Your task to perform on an android device: Open Google Chrome and open the bookmarks view Image 0: 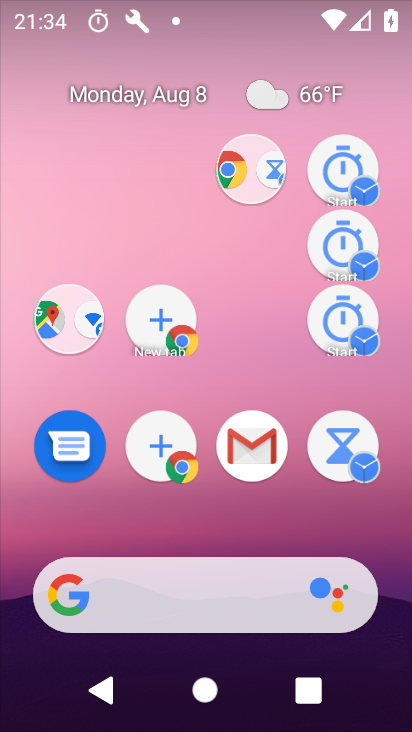
Step 0: click (235, 76)
Your task to perform on an android device: Open Google Chrome and open the bookmarks view Image 1: 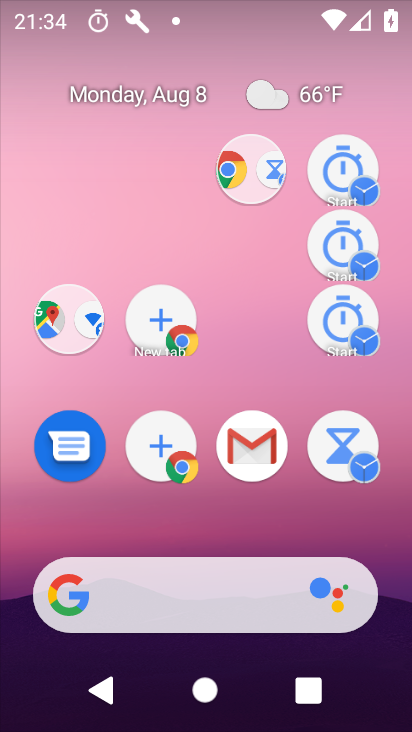
Step 1: drag from (271, 458) to (194, 83)
Your task to perform on an android device: Open Google Chrome and open the bookmarks view Image 2: 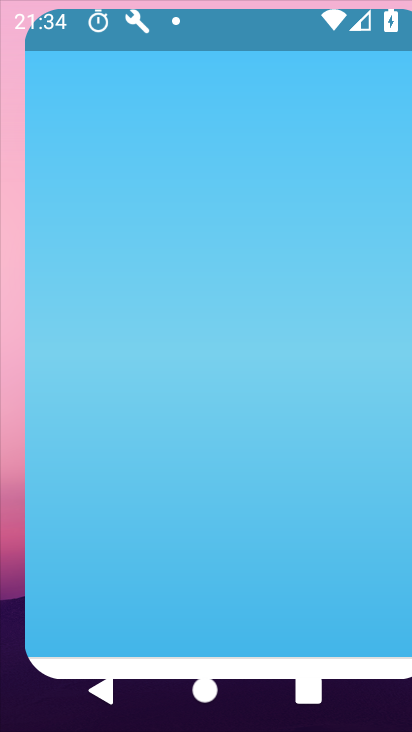
Step 2: drag from (270, 449) to (225, 162)
Your task to perform on an android device: Open Google Chrome and open the bookmarks view Image 3: 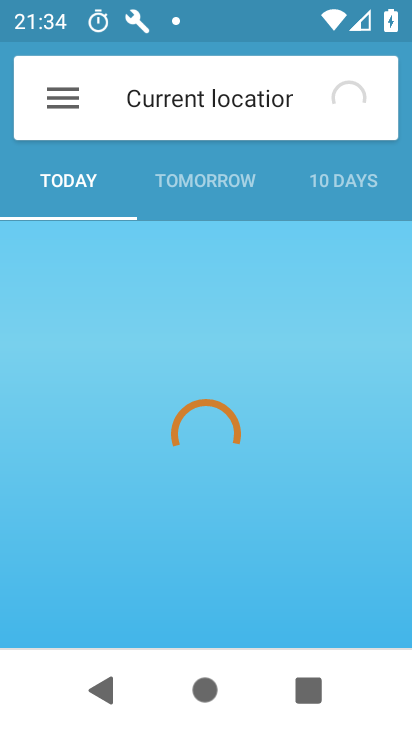
Step 3: drag from (265, 497) to (220, 179)
Your task to perform on an android device: Open Google Chrome and open the bookmarks view Image 4: 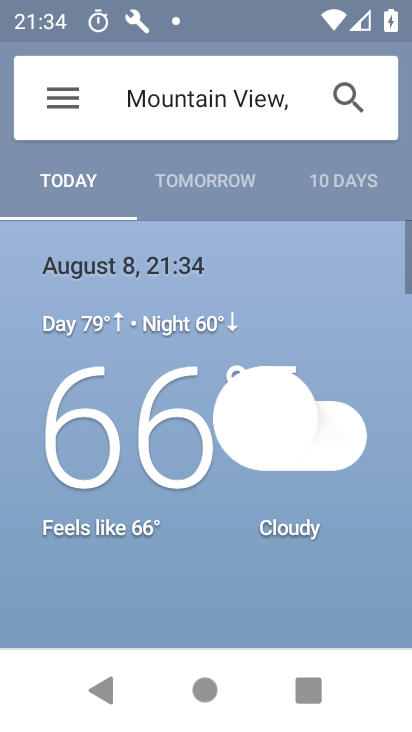
Step 4: press back button
Your task to perform on an android device: Open Google Chrome and open the bookmarks view Image 5: 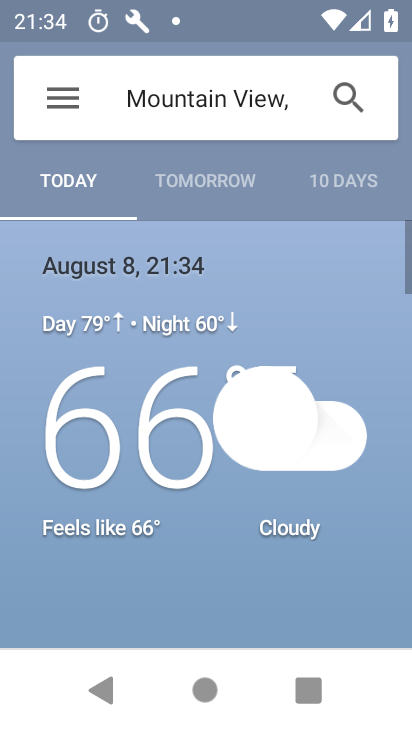
Step 5: press back button
Your task to perform on an android device: Open Google Chrome and open the bookmarks view Image 6: 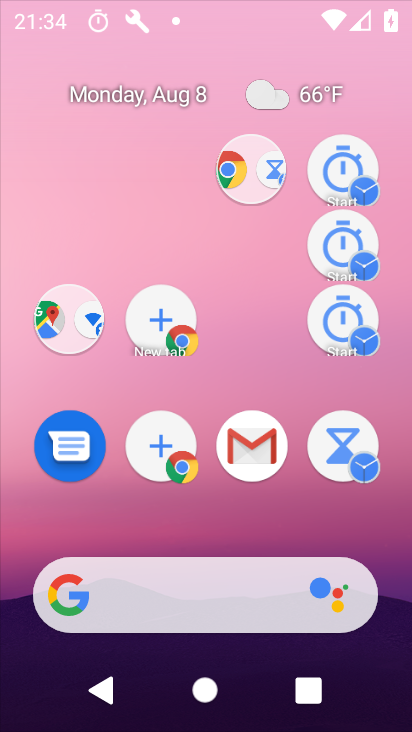
Step 6: press back button
Your task to perform on an android device: Open Google Chrome and open the bookmarks view Image 7: 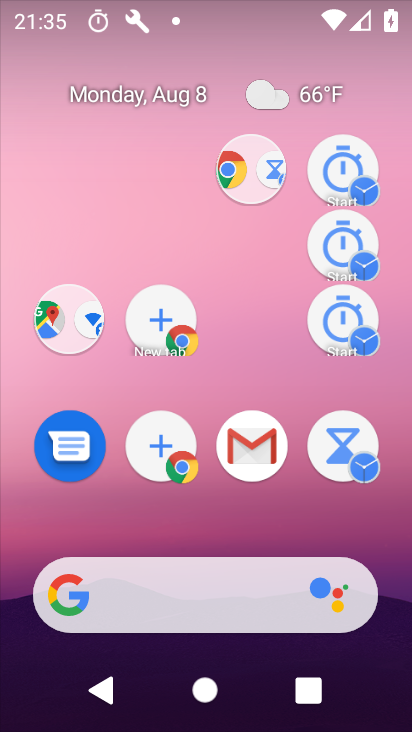
Step 7: drag from (251, 547) to (191, 187)
Your task to perform on an android device: Open Google Chrome and open the bookmarks view Image 8: 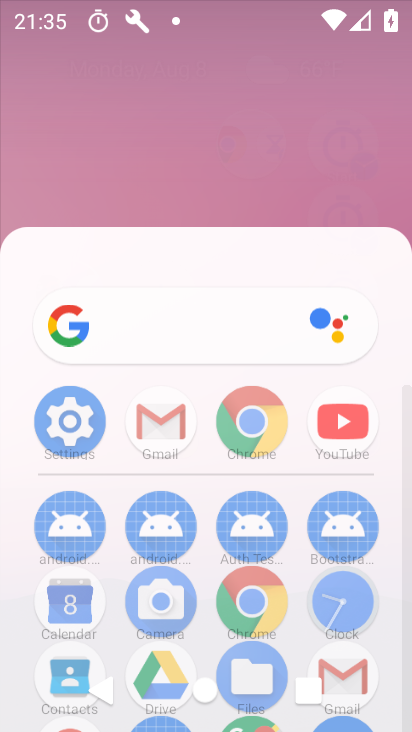
Step 8: click (202, 348)
Your task to perform on an android device: Open Google Chrome and open the bookmarks view Image 9: 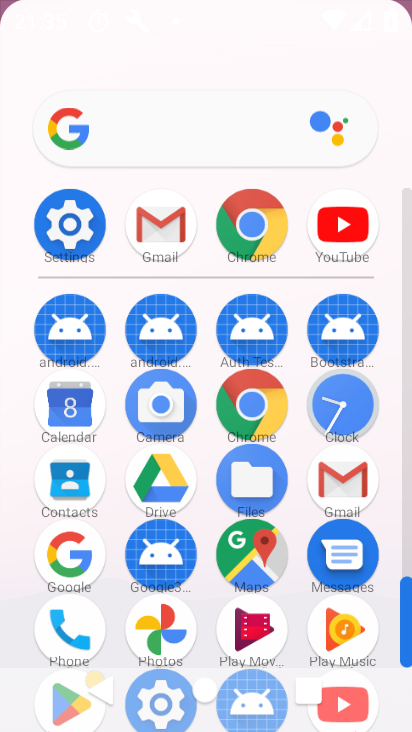
Step 9: drag from (176, 167) to (194, 211)
Your task to perform on an android device: Open Google Chrome and open the bookmarks view Image 10: 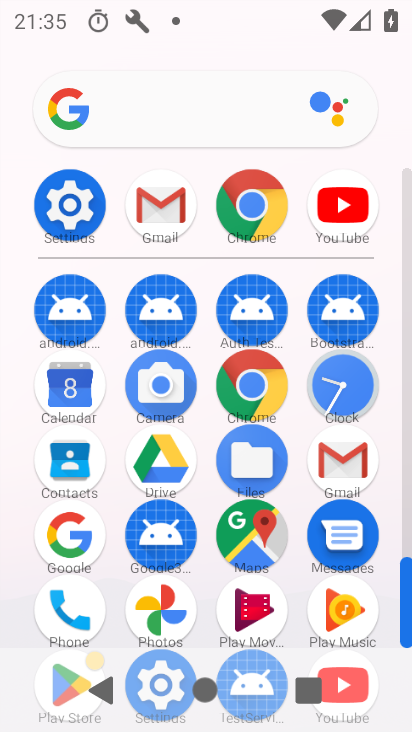
Step 10: click (252, 202)
Your task to perform on an android device: Open Google Chrome and open the bookmarks view Image 11: 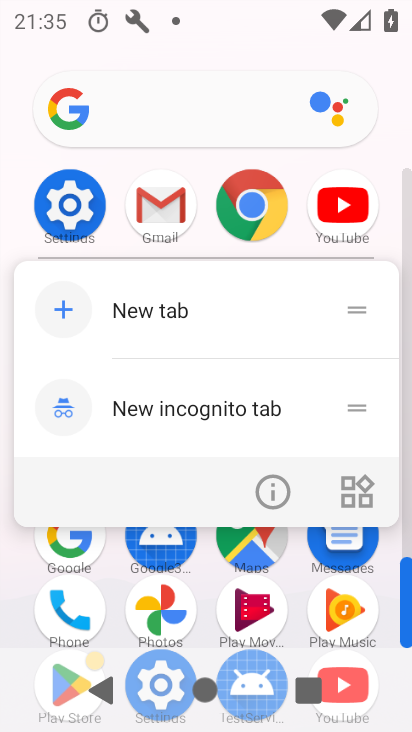
Step 11: click (251, 202)
Your task to perform on an android device: Open Google Chrome and open the bookmarks view Image 12: 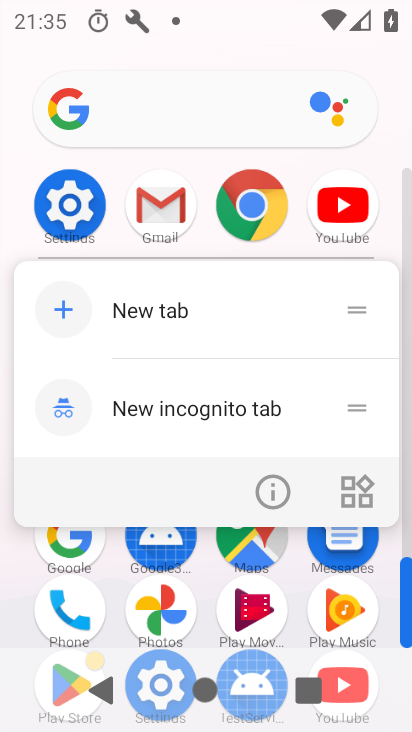
Step 12: click (189, 303)
Your task to perform on an android device: Open Google Chrome and open the bookmarks view Image 13: 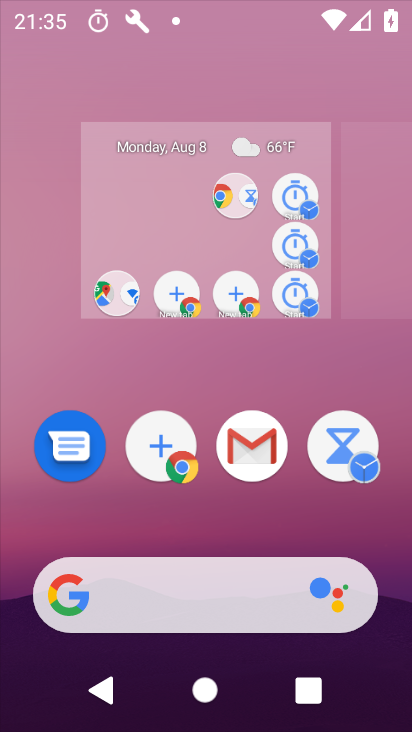
Step 13: click (188, 316)
Your task to perform on an android device: Open Google Chrome and open the bookmarks view Image 14: 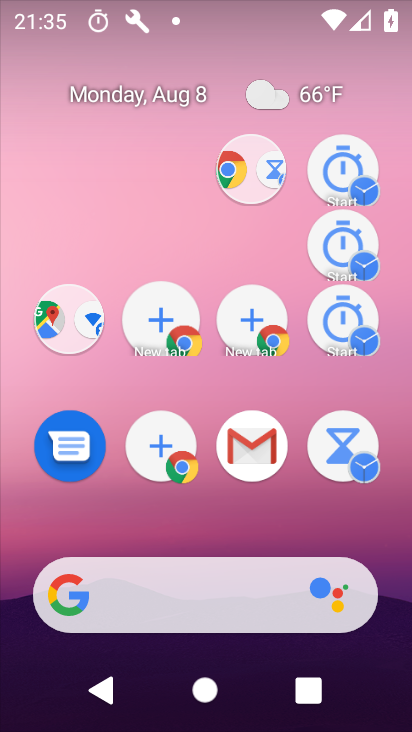
Step 14: drag from (268, 326) to (249, 288)
Your task to perform on an android device: Open Google Chrome and open the bookmarks view Image 15: 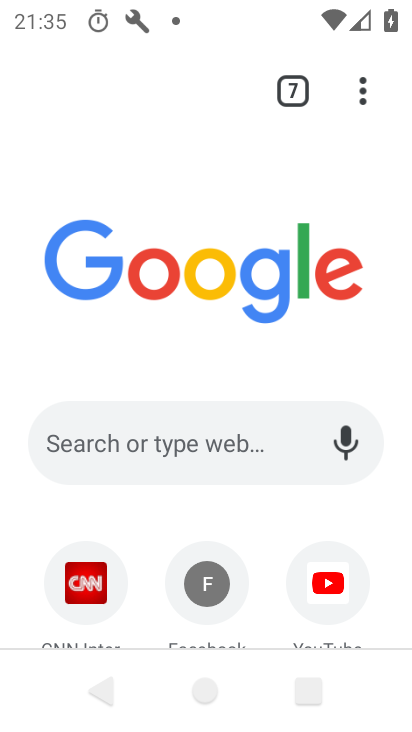
Step 15: drag from (244, 495) to (215, 208)
Your task to perform on an android device: Open Google Chrome and open the bookmarks view Image 16: 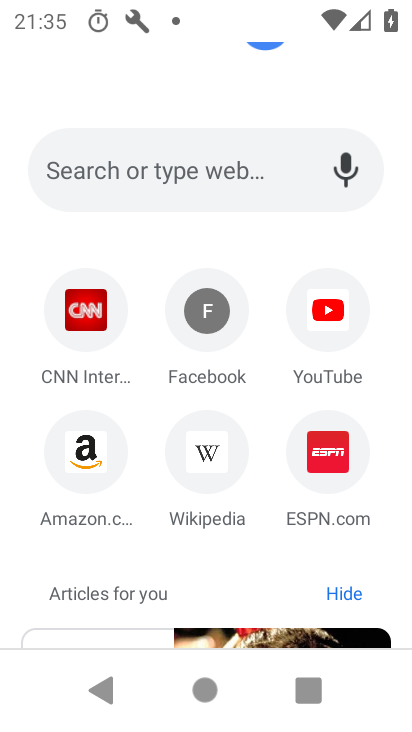
Step 16: click (294, 462)
Your task to perform on an android device: Open Google Chrome and open the bookmarks view Image 17: 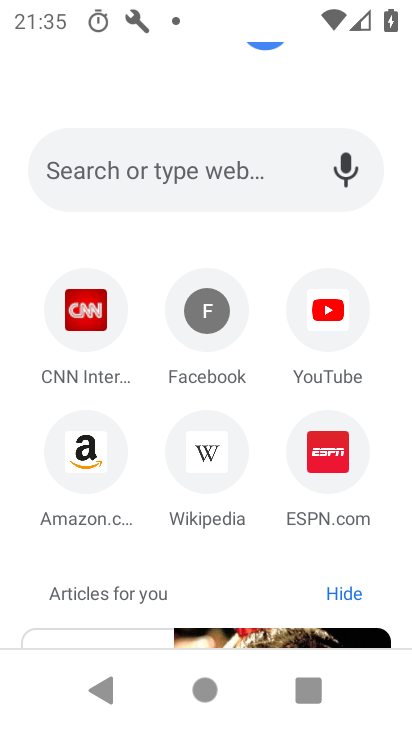
Step 17: drag from (249, 285) to (265, 399)
Your task to perform on an android device: Open Google Chrome and open the bookmarks view Image 18: 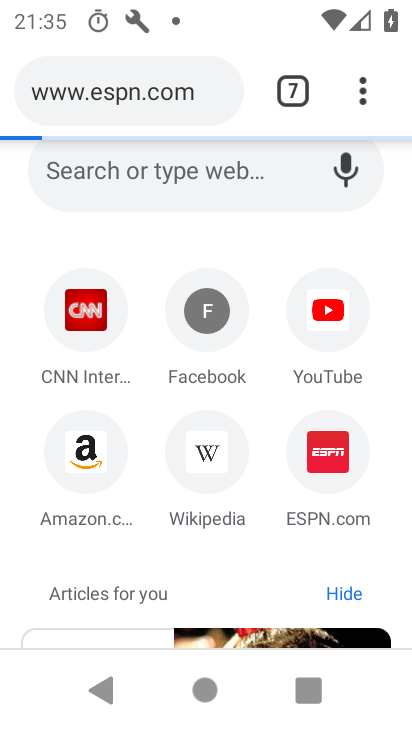
Step 18: drag from (266, 267) to (278, 382)
Your task to perform on an android device: Open Google Chrome and open the bookmarks view Image 19: 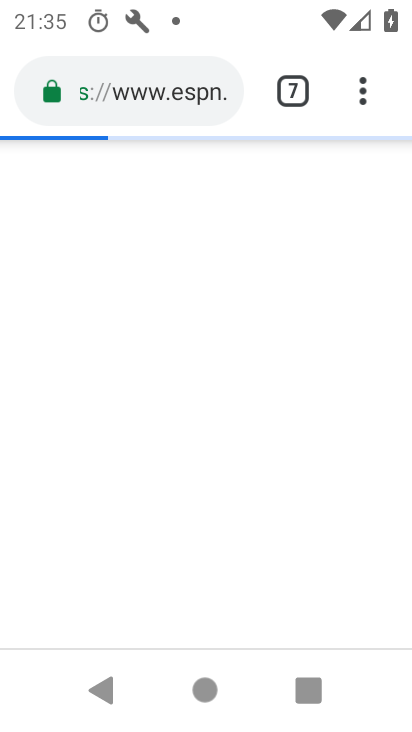
Step 19: drag from (352, 171) to (355, 393)
Your task to perform on an android device: Open Google Chrome and open the bookmarks view Image 20: 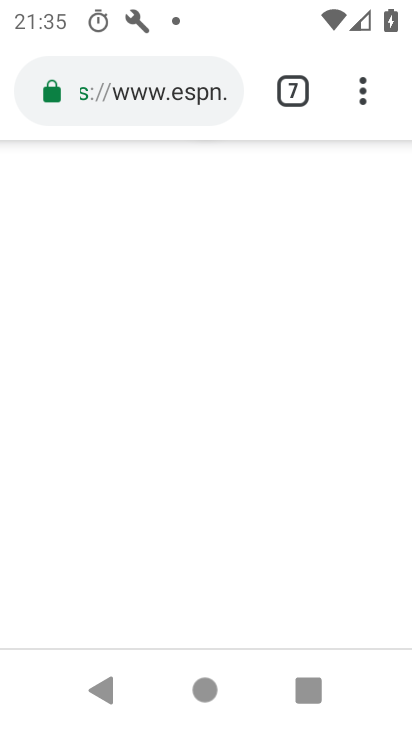
Step 20: drag from (360, 86) to (83, 352)
Your task to perform on an android device: Open Google Chrome and open the bookmarks view Image 21: 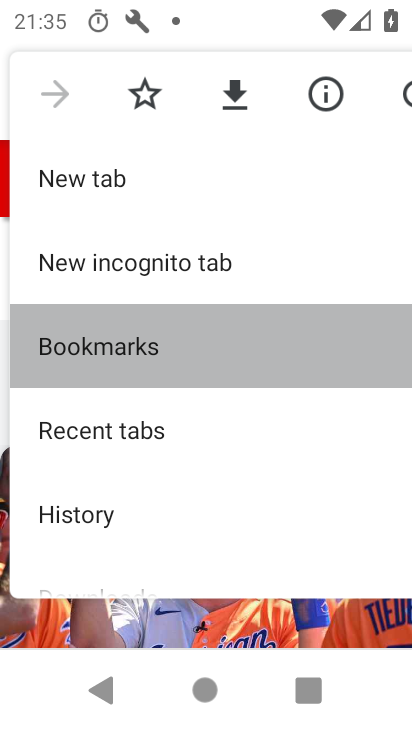
Step 21: click (83, 352)
Your task to perform on an android device: Open Google Chrome and open the bookmarks view Image 22: 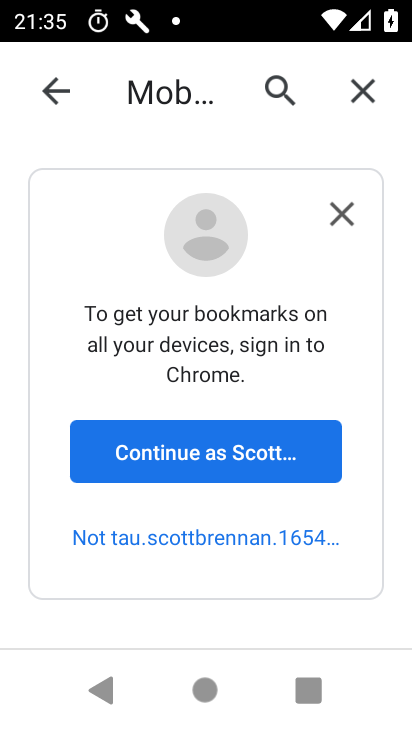
Step 22: click (90, 346)
Your task to perform on an android device: Open Google Chrome and open the bookmarks view Image 23: 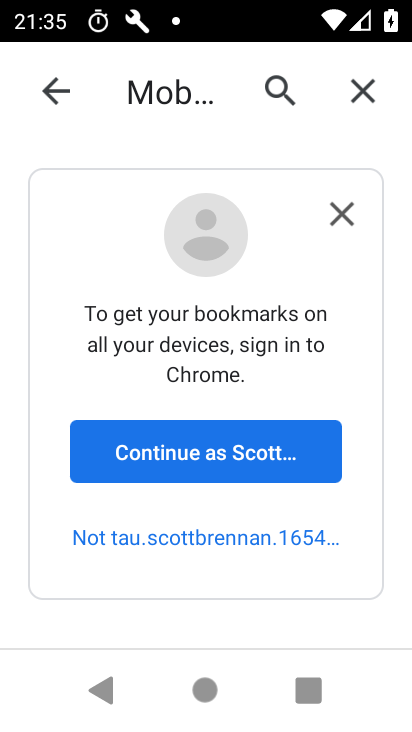
Step 23: click (332, 200)
Your task to perform on an android device: Open Google Chrome and open the bookmarks view Image 24: 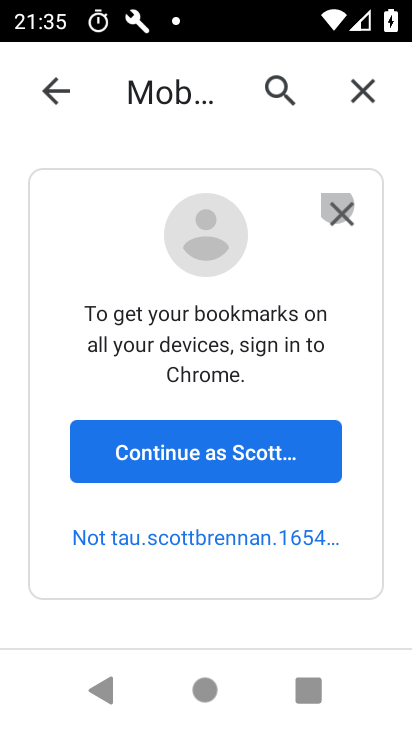
Step 24: click (332, 200)
Your task to perform on an android device: Open Google Chrome and open the bookmarks view Image 25: 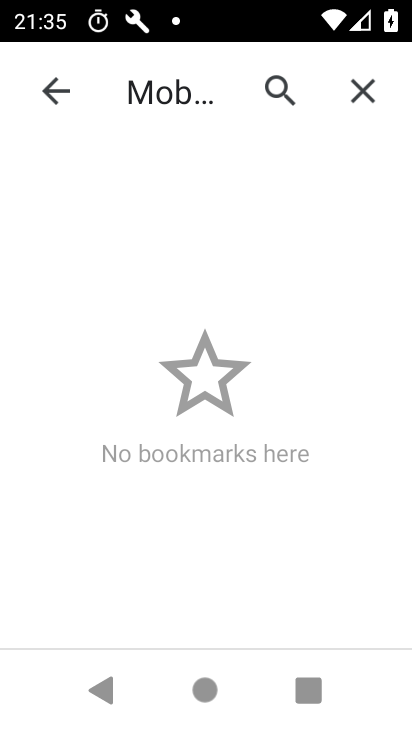
Step 25: click (332, 200)
Your task to perform on an android device: Open Google Chrome and open the bookmarks view Image 26: 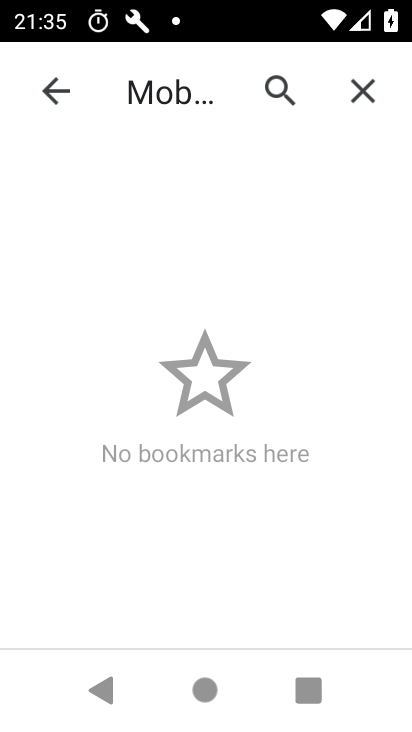
Step 26: task complete